Your task to perform on an android device: Go to battery settings Image 0: 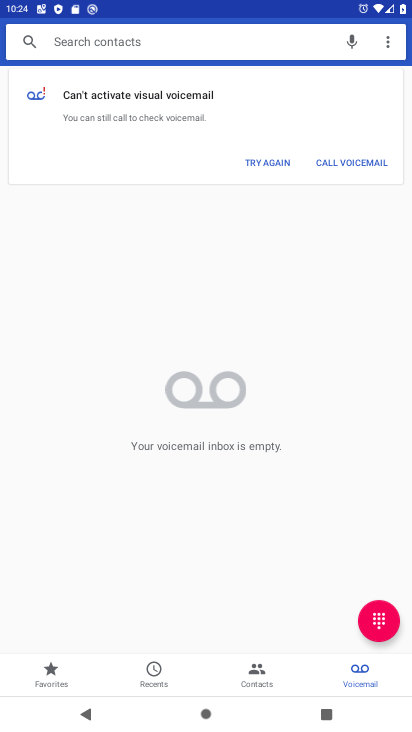
Step 0: press home button
Your task to perform on an android device: Go to battery settings Image 1: 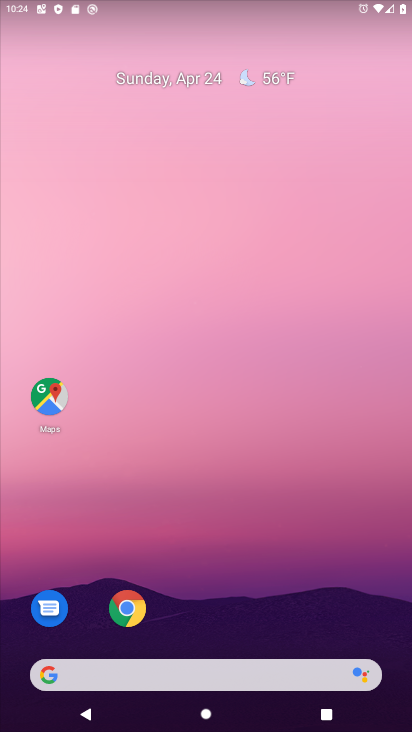
Step 1: drag from (180, 650) to (179, 8)
Your task to perform on an android device: Go to battery settings Image 2: 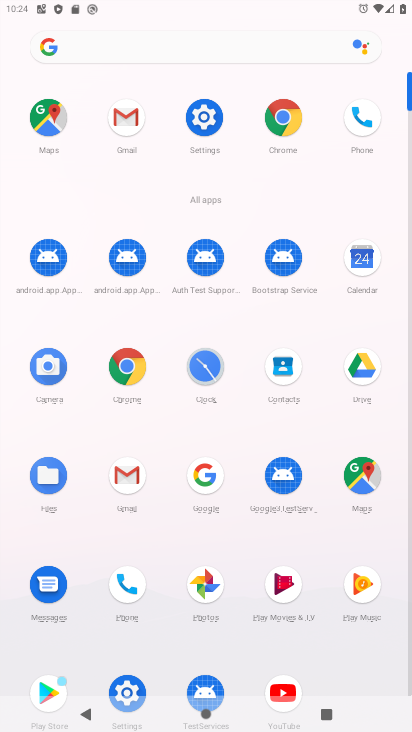
Step 2: click (191, 119)
Your task to perform on an android device: Go to battery settings Image 3: 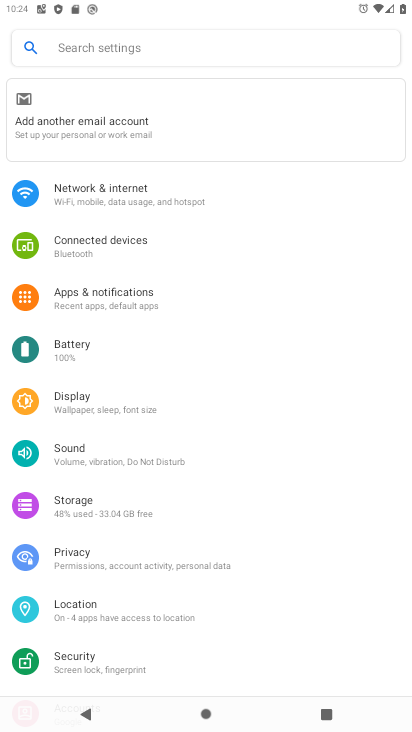
Step 3: click (70, 347)
Your task to perform on an android device: Go to battery settings Image 4: 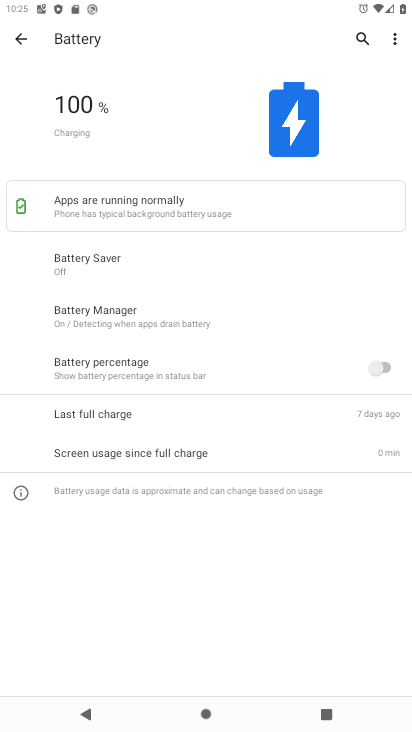
Step 4: task complete